Your task to perform on an android device: Go to Yahoo.com Image 0: 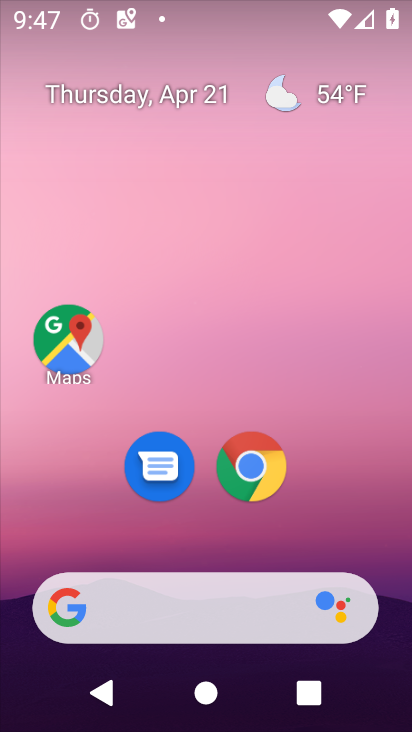
Step 0: drag from (349, 517) to (378, 143)
Your task to perform on an android device: Go to Yahoo.com Image 1: 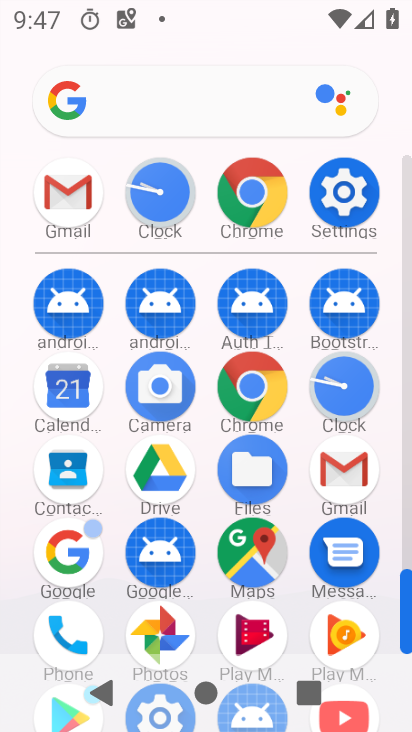
Step 1: click (275, 384)
Your task to perform on an android device: Go to Yahoo.com Image 2: 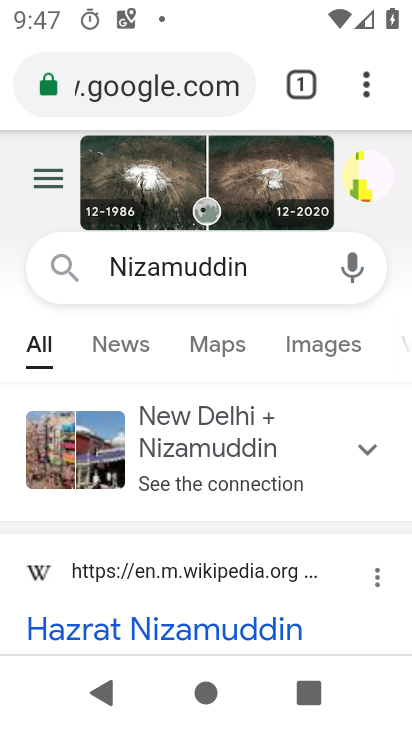
Step 2: click (210, 84)
Your task to perform on an android device: Go to Yahoo.com Image 3: 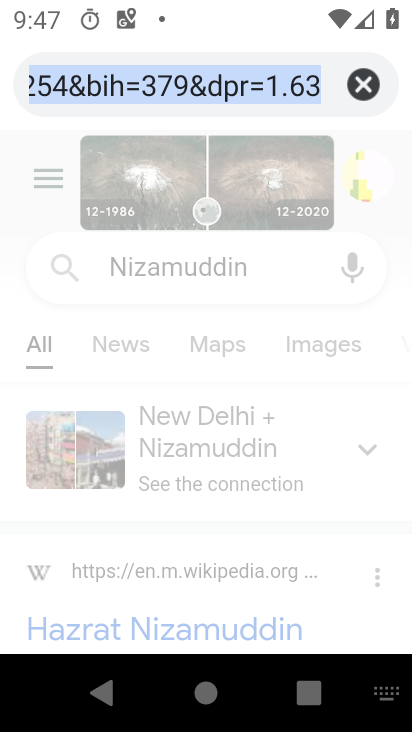
Step 3: click (369, 94)
Your task to perform on an android device: Go to Yahoo.com Image 4: 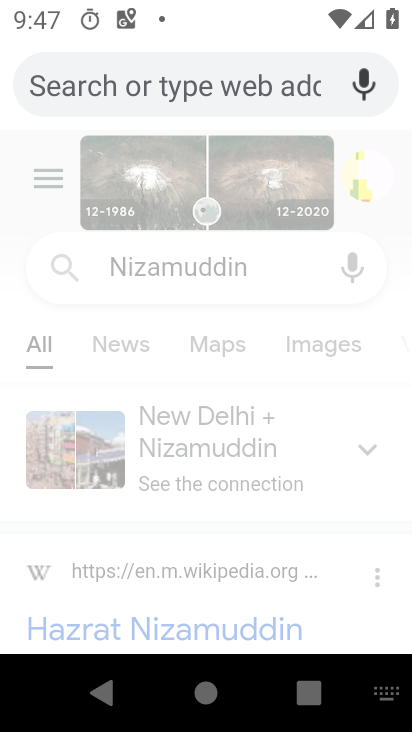
Step 4: type "yahoo.com"
Your task to perform on an android device: Go to Yahoo.com Image 5: 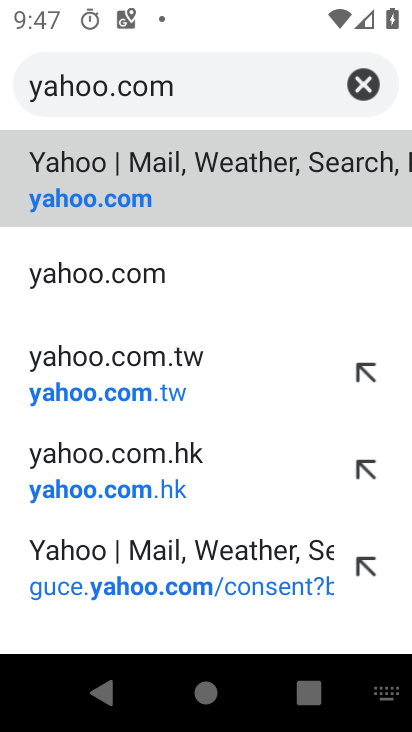
Step 5: click (179, 200)
Your task to perform on an android device: Go to Yahoo.com Image 6: 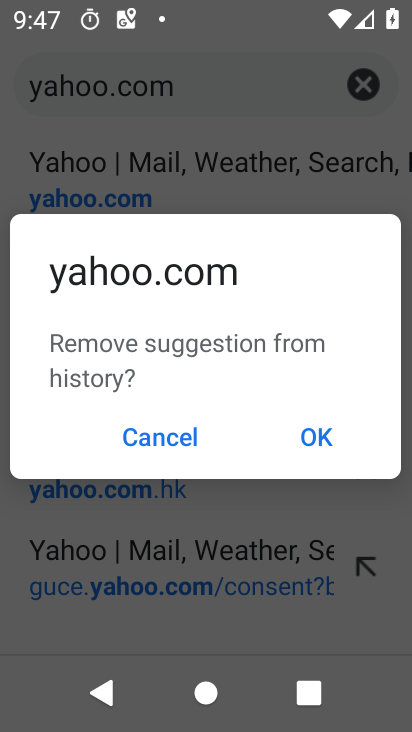
Step 6: click (174, 445)
Your task to perform on an android device: Go to Yahoo.com Image 7: 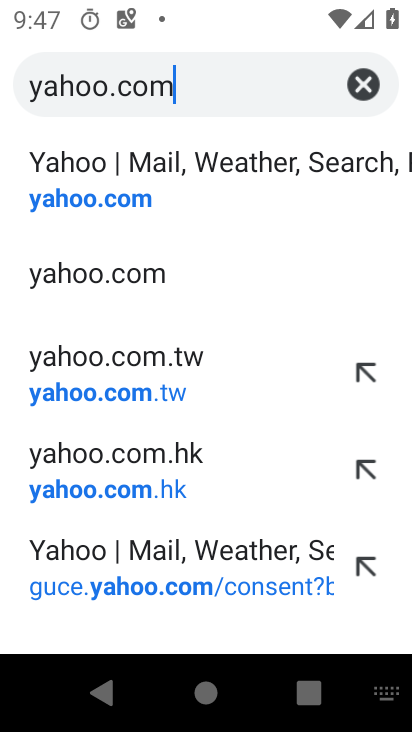
Step 7: click (133, 282)
Your task to perform on an android device: Go to Yahoo.com Image 8: 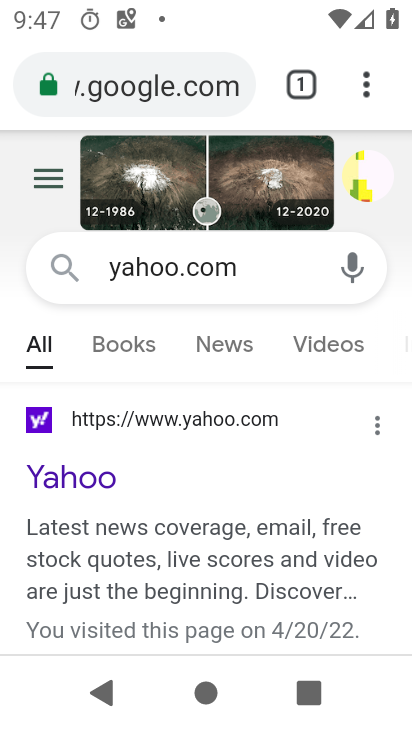
Step 8: drag from (195, 539) to (234, 289)
Your task to perform on an android device: Go to Yahoo.com Image 9: 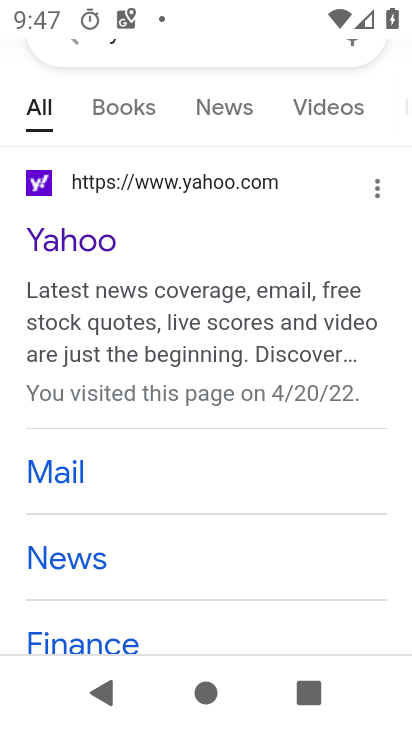
Step 9: click (52, 237)
Your task to perform on an android device: Go to Yahoo.com Image 10: 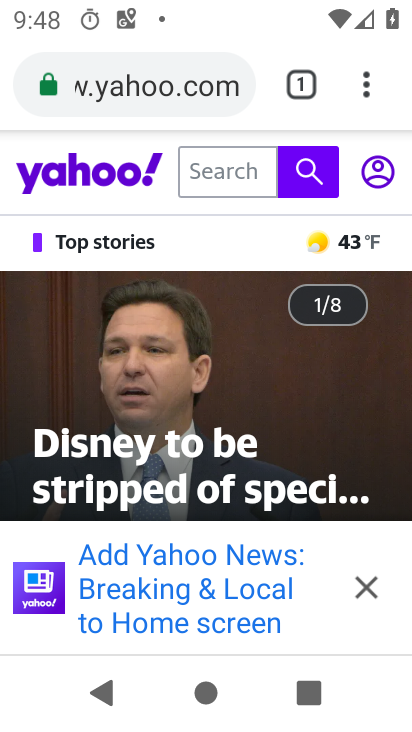
Step 10: task complete